Your task to perform on an android device: turn off priority inbox in the gmail app Image 0: 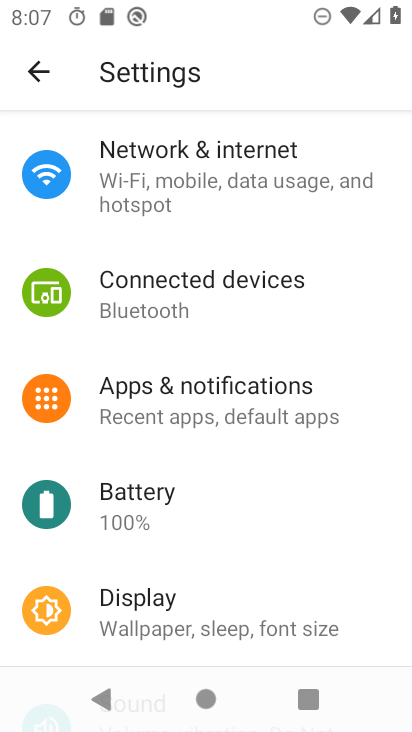
Step 0: press home button
Your task to perform on an android device: turn off priority inbox in the gmail app Image 1: 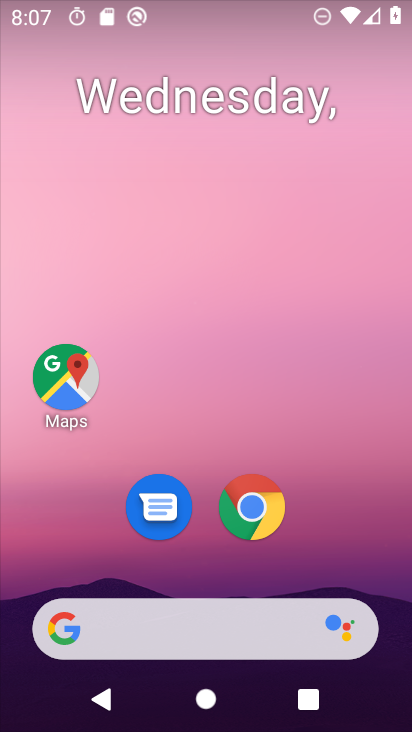
Step 1: drag from (266, 677) to (242, 302)
Your task to perform on an android device: turn off priority inbox in the gmail app Image 2: 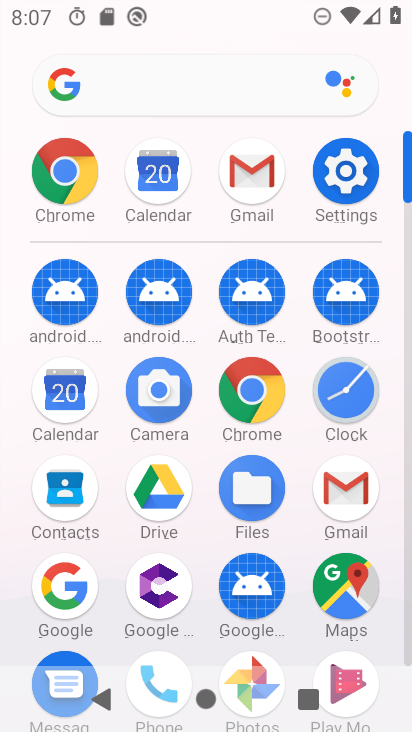
Step 2: click (265, 197)
Your task to perform on an android device: turn off priority inbox in the gmail app Image 3: 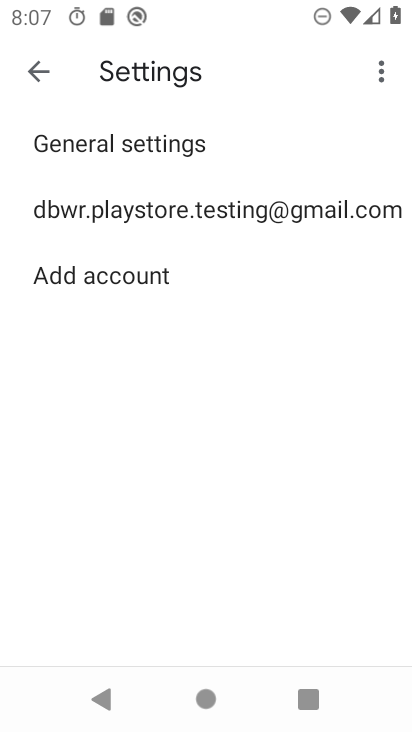
Step 3: click (176, 210)
Your task to perform on an android device: turn off priority inbox in the gmail app Image 4: 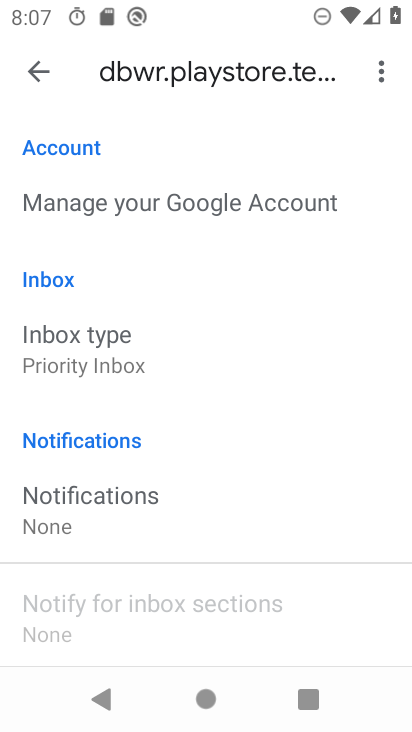
Step 4: click (106, 375)
Your task to perform on an android device: turn off priority inbox in the gmail app Image 5: 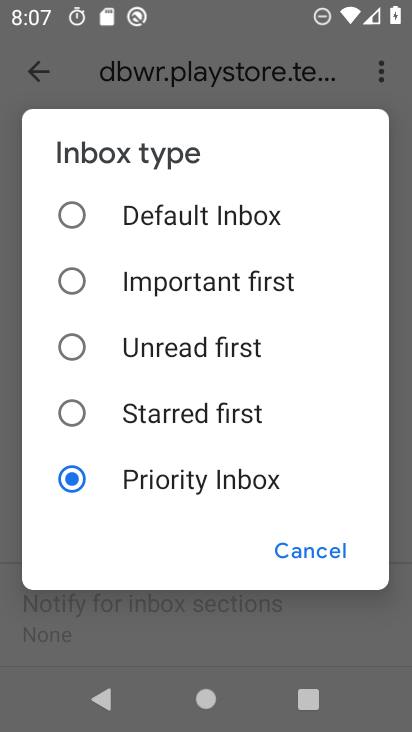
Step 5: click (164, 236)
Your task to perform on an android device: turn off priority inbox in the gmail app Image 6: 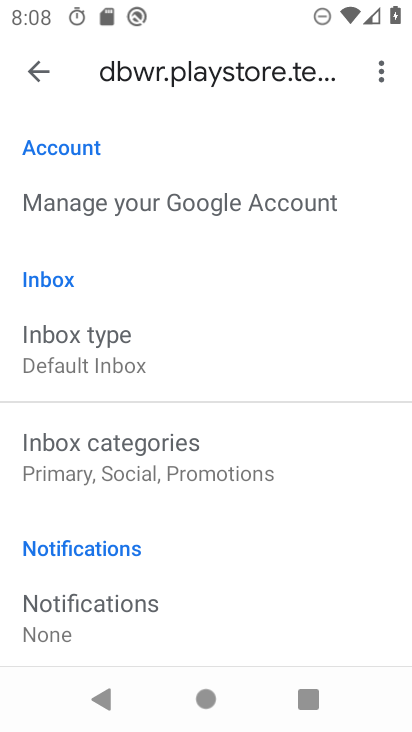
Step 6: task complete